Your task to perform on an android device: Open eBay Image 0: 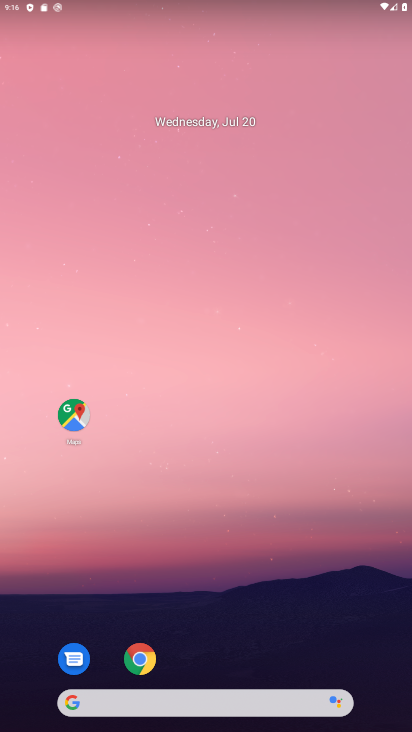
Step 0: click (150, 662)
Your task to perform on an android device: Open eBay Image 1: 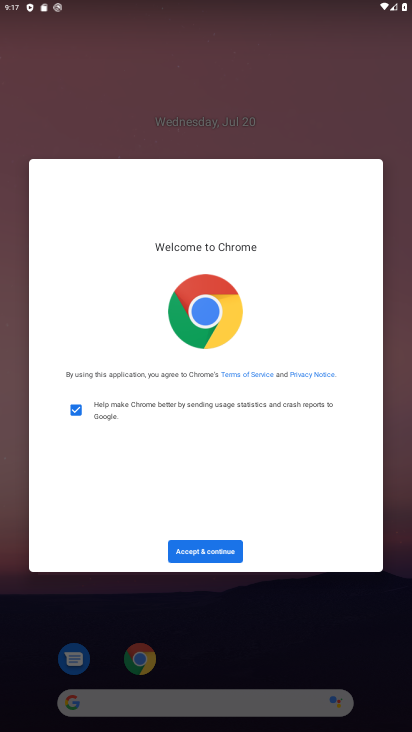
Step 1: click (221, 545)
Your task to perform on an android device: Open eBay Image 2: 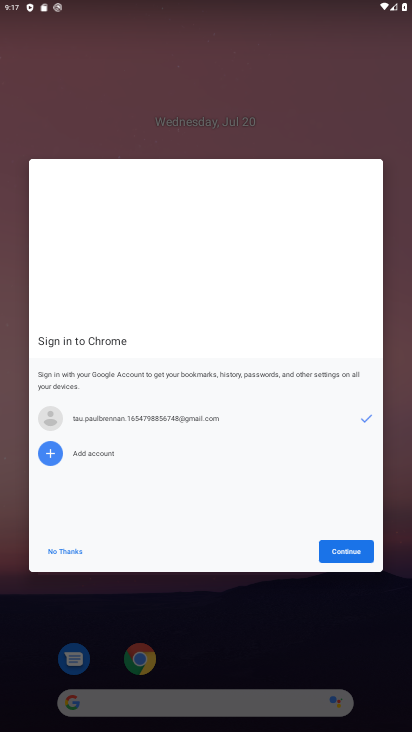
Step 2: click (339, 548)
Your task to perform on an android device: Open eBay Image 3: 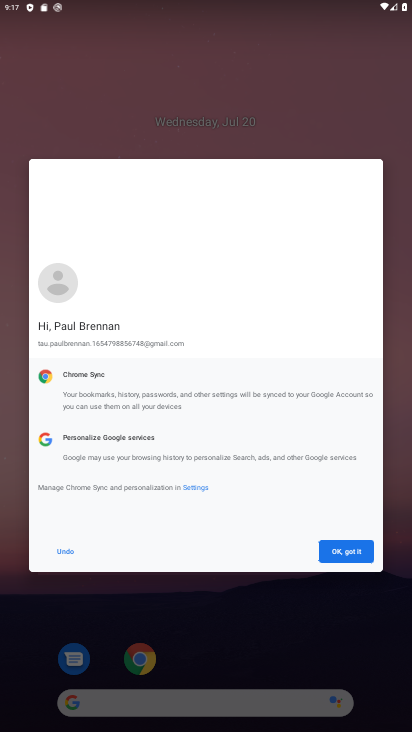
Step 3: click (339, 548)
Your task to perform on an android device: Open eBay Image 4: 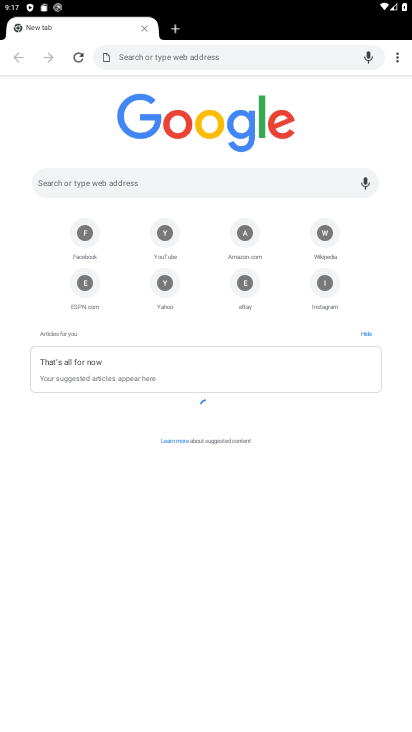
Step 4: click (243, 290)
Your task to perform on an android device: Open eBay Image 5: 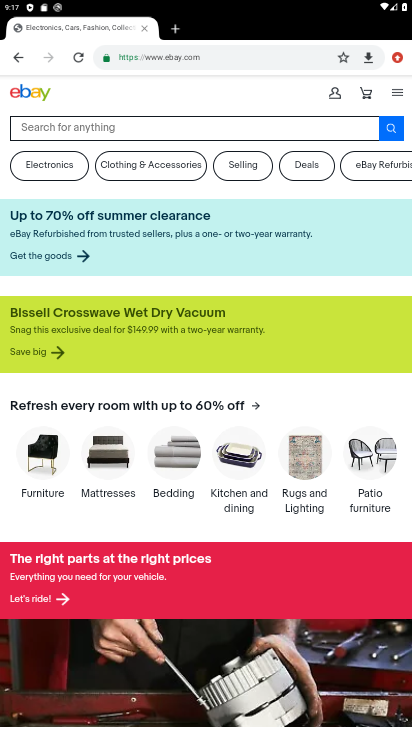
Step 5: task complete